Your task to perform on an android device: open sync settings in chrome Image 0: 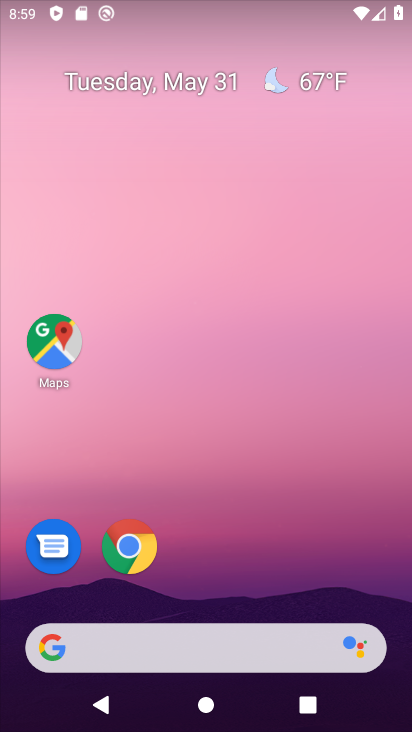
Step 0: click (137, 554)
Your task to perform on an android device: open sync settings in chrome Image 1: 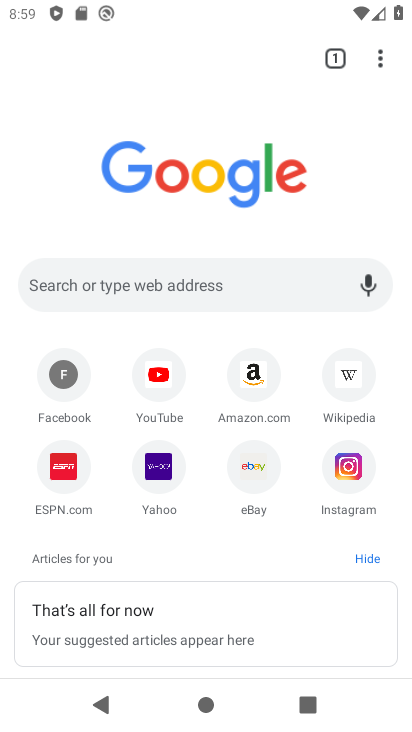
Step 1: click (380, 53)
Your task to perform on an android device: open sync settings in chrome Image 2: 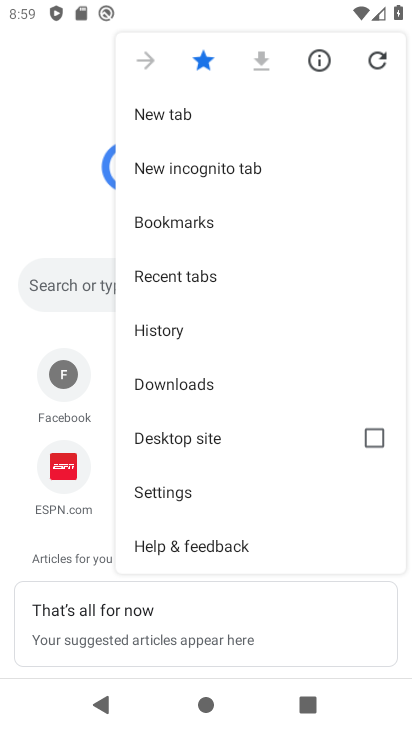
Step 2: click (183, 497)
Your task to perform on an android device: open sync settings in chrome Image 3: 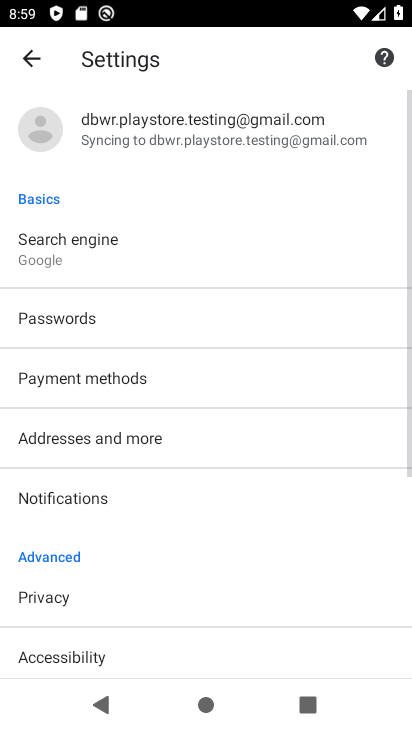
Step 3: drag from (162, 519) to (200, 180)
Your task to perform on an android device: open sync settings in chrome Image 4: 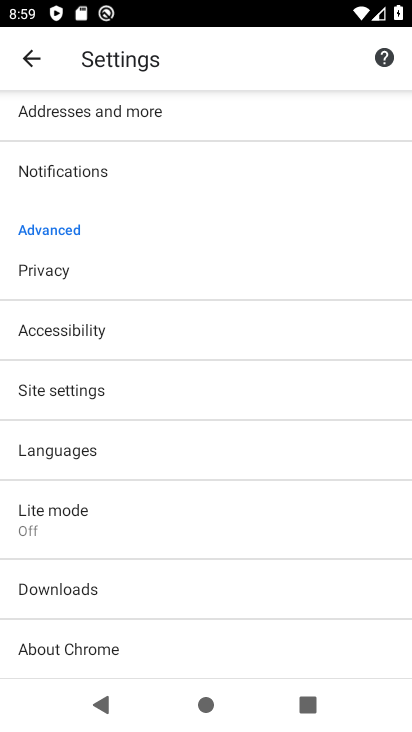
Step 4: drag from (108, 559) to (100, 657)
Your task to perform on an android device: open sync settings in chrome Image 5: 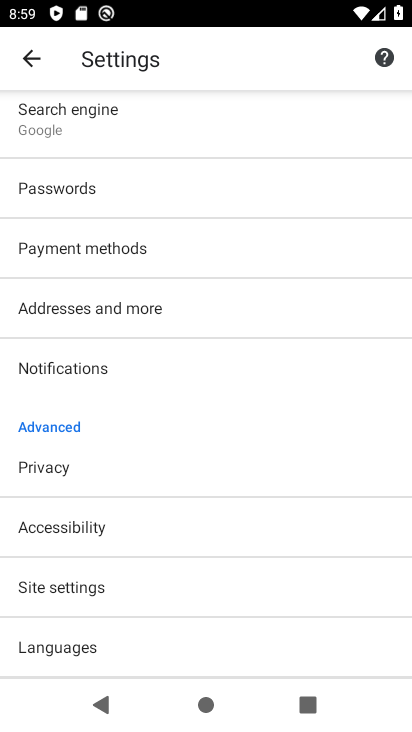
Step 5: drag from (149, 177) to (149, 438)
Your task to perform on an android device: open sync settings in chrome Image 6: 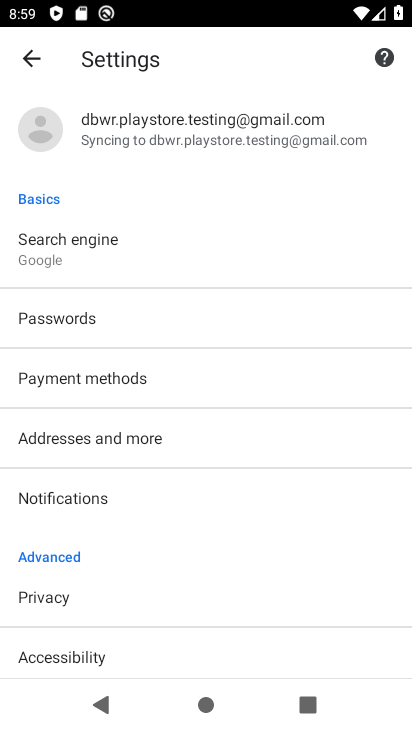
Step 6: click (174, 126)
Your task to perform on an android device: open sync settings in chrome Image 7: 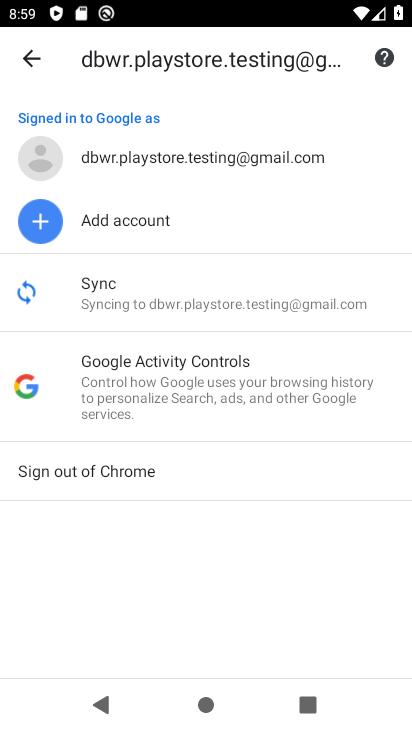
Step 7: click (160, 308)
Your task to perform on an android device: open sync settings in chrome Image 8: 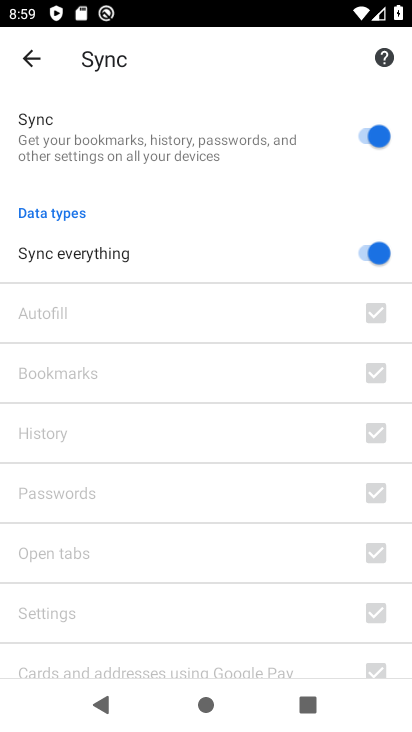
Step 8: task complete